Your task to perform on an android device: turn on priority inbox in the gmail app Image 0: 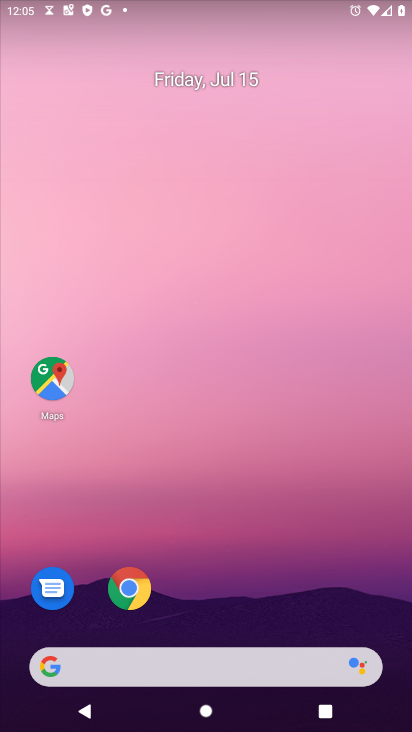
Step 0: press home button
Your task to perform on an android device: turn on priority inbox in the gmail app Image 1: 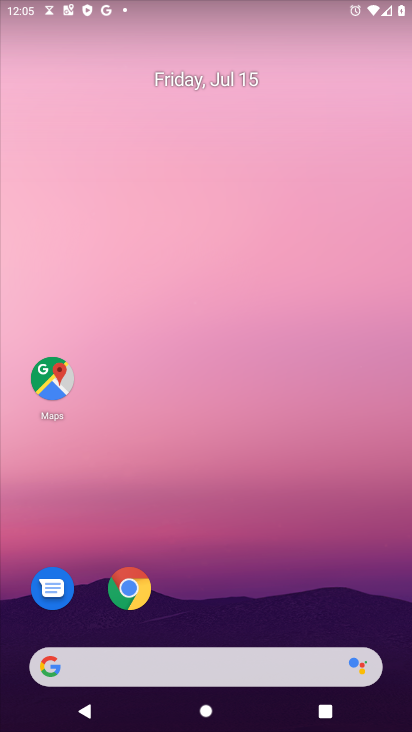
Step 1: drag from (136, 676) to (287, 137)
Your task to perform on an android device: turn on priority inbox in the gmail app Image 2: 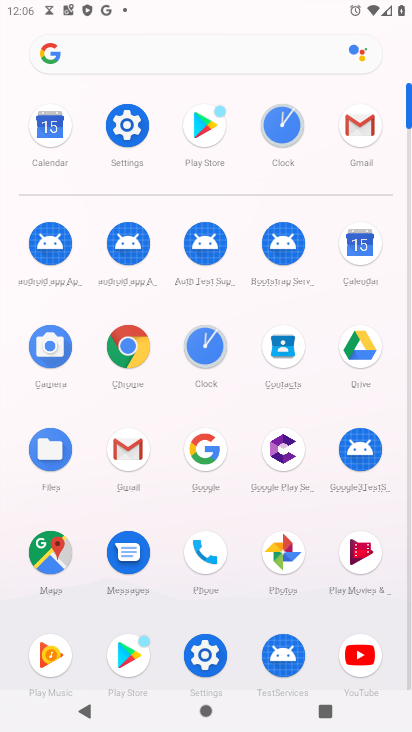
Step 2: click (358, 130)
Your task to perform on an android device: turn on priority inbox in the gmail app Image 3: 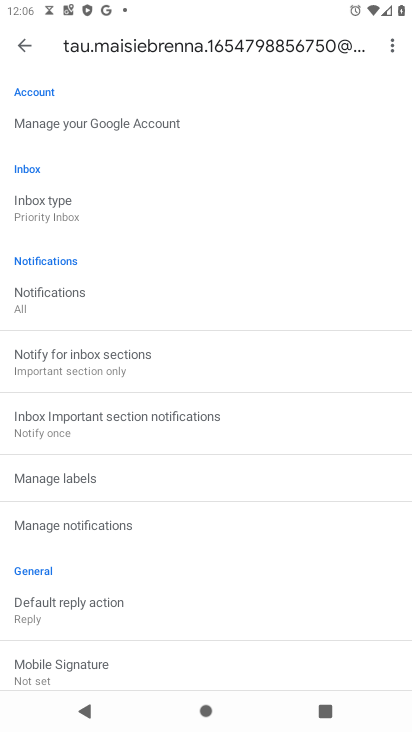
Step 3: click (53, 214)
Your task to perform on an android device: turn on priority inbox in the gmail app Image 4: 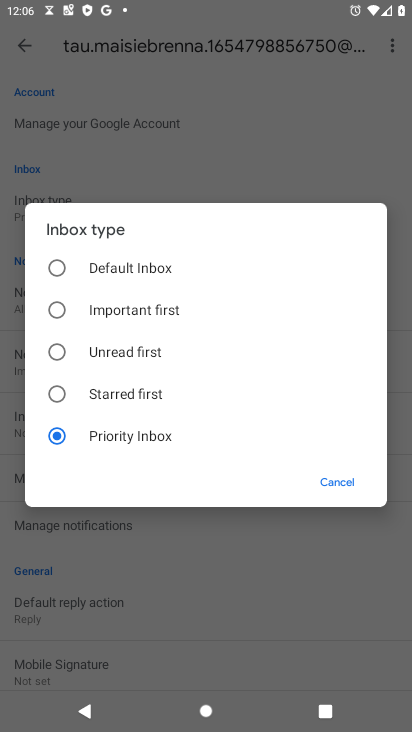
Step 4: task complete